Your task to perform on an android device: delete the emails in spam in the gmail app Image 0: 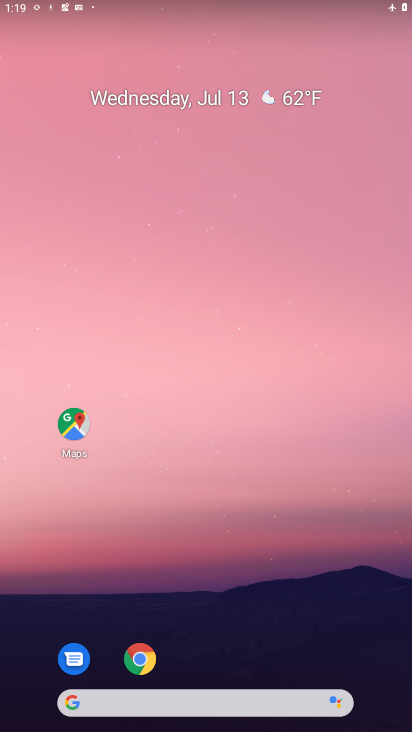
Step 0: drag from (256, 726) to (231, 114)
Your task to perform on an android device: delete the emails in spam in the gmail app Image 1: 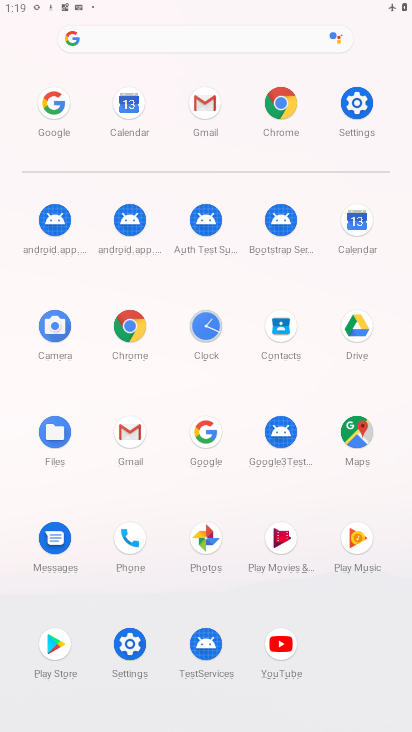
Step 1: click (124, 438)
Your task to perform on an android device: delete the emails in spam in the gmail app Image 2: 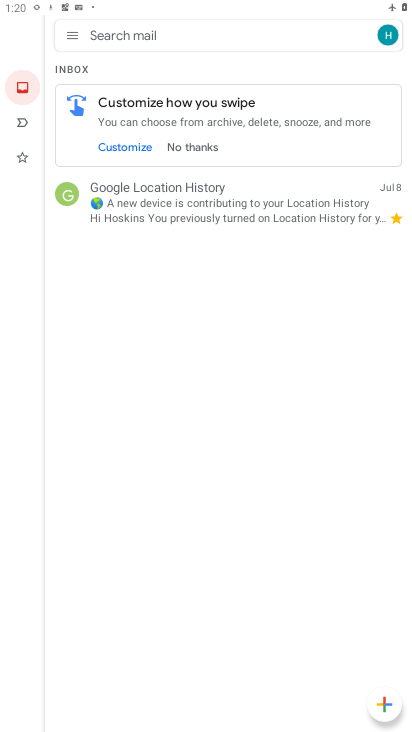
Step 2: click (237, 206)
Your task to perform on an android device: delete the emails in spam in the gmail app Image 3: 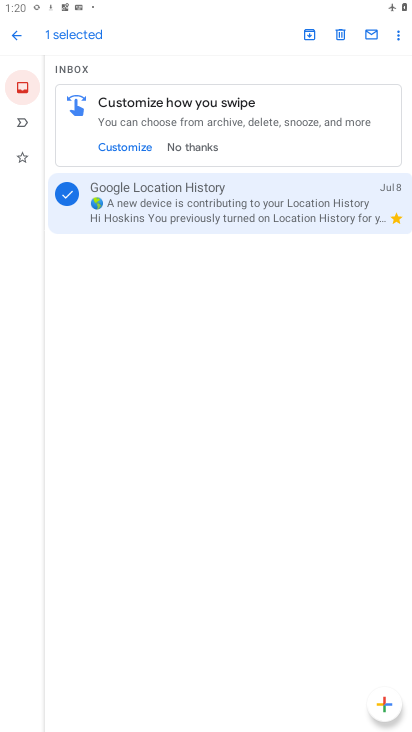
Step 3: click (339, 33)
Your task to perform on an android device: delete the emails in spam in the gmail app Image 4: 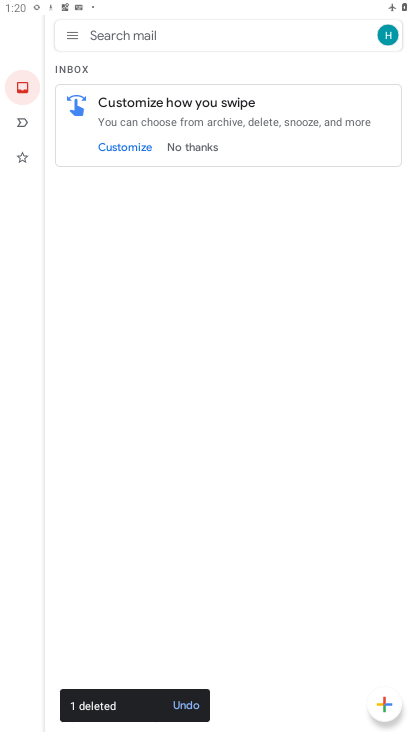
Step 4: task complete